Your task to perform on an android device: star an email in the gmail app Image 0: 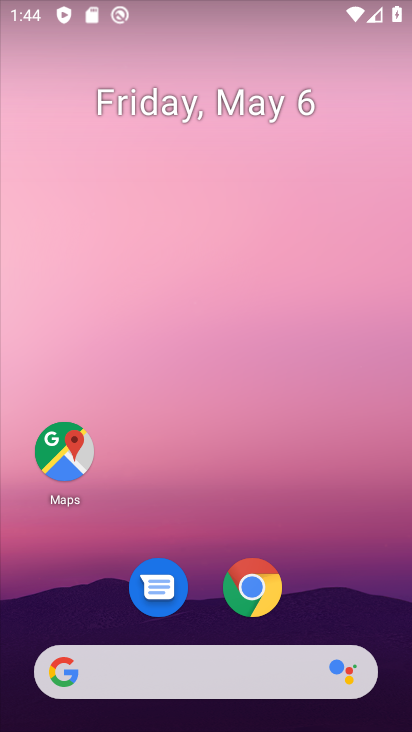
Step 0: drag from (322, 638) to (305, 164)
Your task to perform on an android device: star an email in the gmail app Image 1: 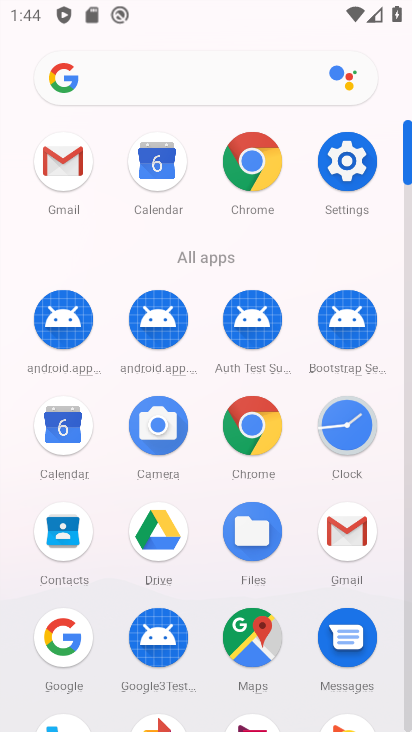
Step 1: click (367, 526)
Your task to perform on an android device: star an email in the gmail app Image 2: 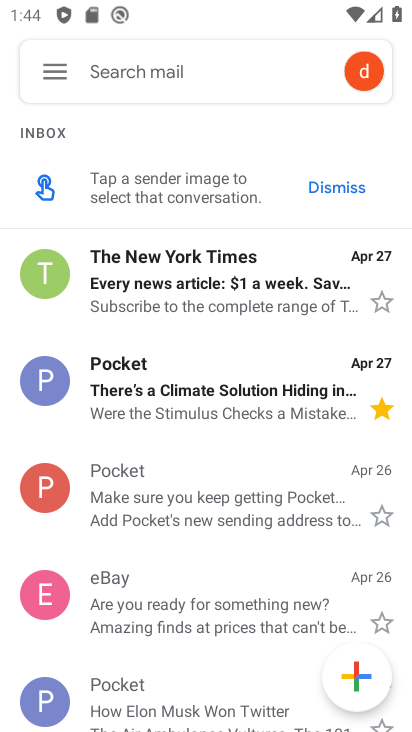
Step 2: click (375, 516)
Your task to perform on an android device: star an email in the gmail app Image 3: 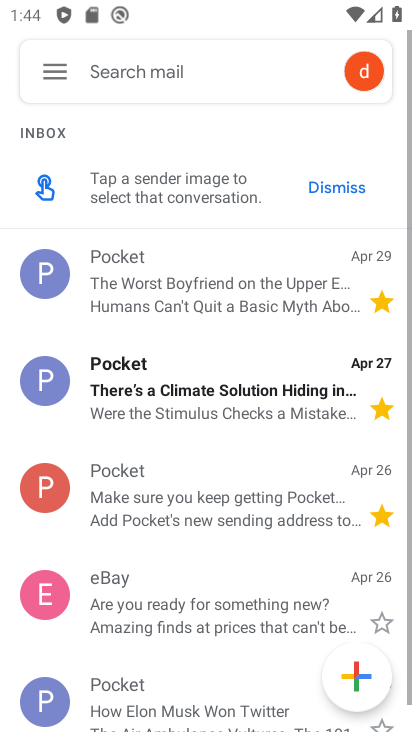
Step 3: task complete